Your task to perform on an android device: Do I have any events this weekend? Image 0: 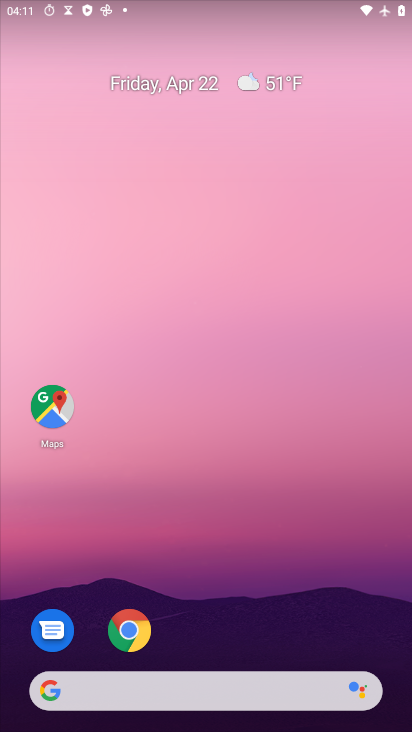
Step 0: drag from (262, 474) to (241, 69)
Your task to perform on an android device: Do I have any events this weekend? Image 1: 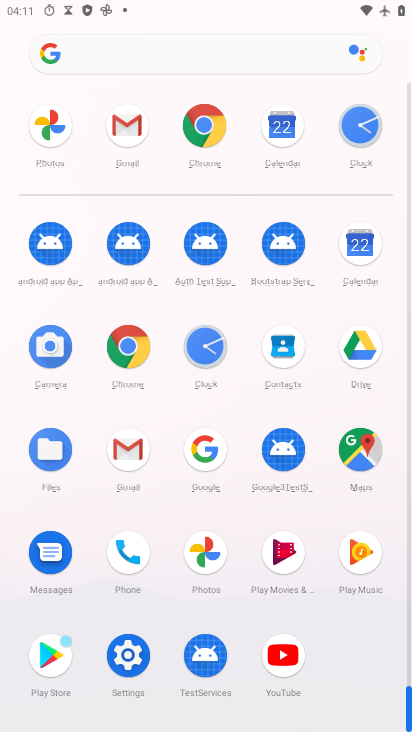
Step 1: drag from (12, 486) to (3, 166)
Your task to perform on an android device: Do I have any events this weekend? Image 2: 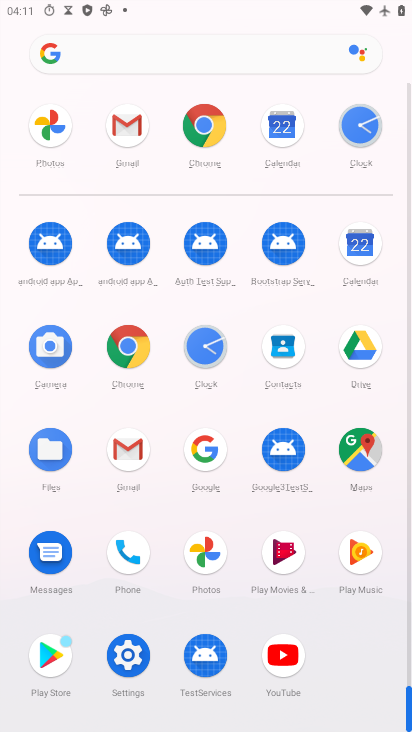
Step 2: drag from (0, 410) to (4, 255)
Your task to perform on an android device: Do I have any events this weekend? Image 3: 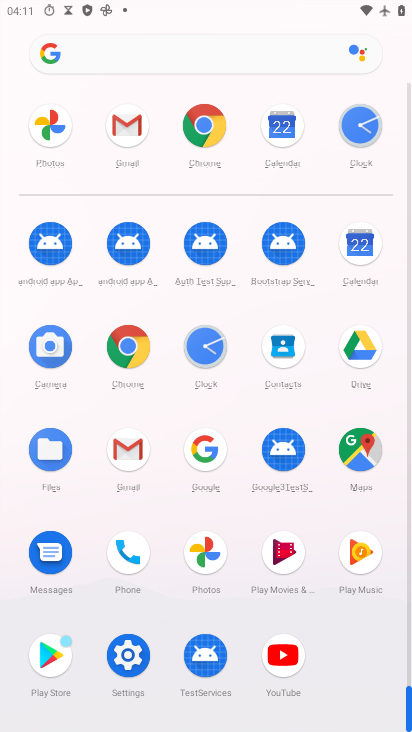
Step 3: click (353, 241)
Your task to perform on an android device: Do I have any events this weekend? Image 4: 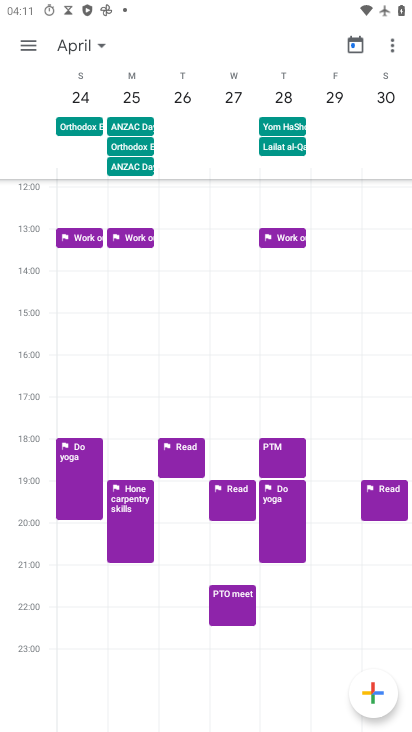
Step 4: task complete